Your task to perform on an android device: turn off location Image 0: 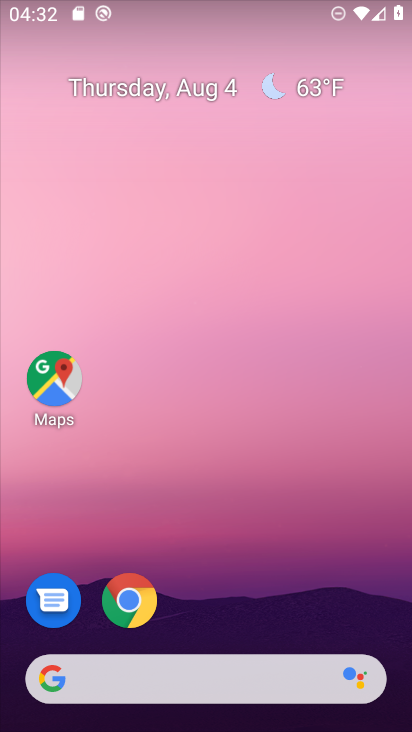
Step 0: drag from (330, 592) to (351, 108)
Your task to perform on an android device: turn off location Image 1: 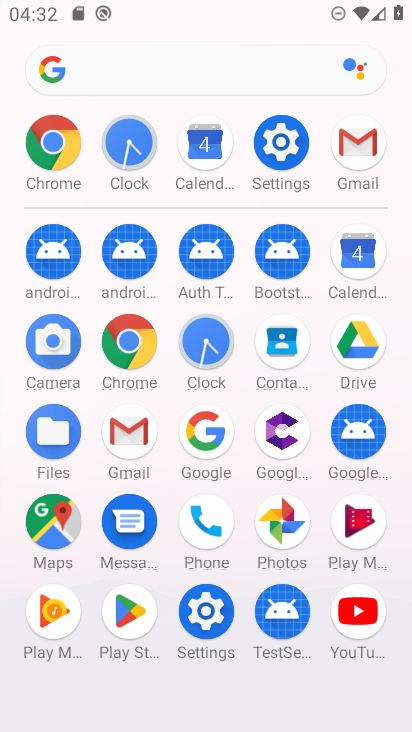
Step 1: click (285, 154)
Your task to perform on an android device: turn off location Image 2: 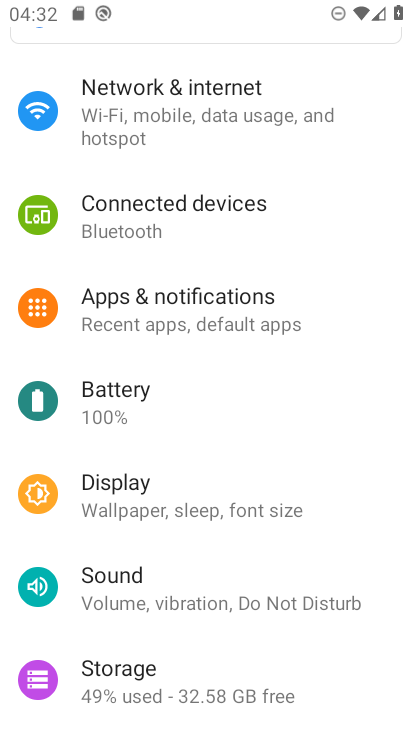
Step 2: drag from (231, 537) to (284, 131)
Your task to perform on an android device: turn off location Image 3: 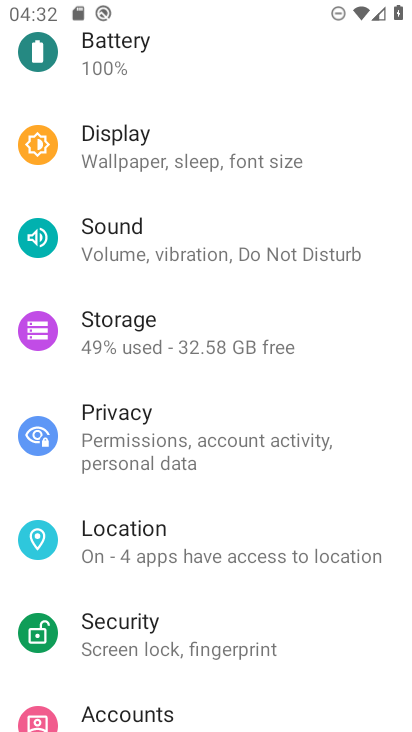
Step 3: click (159, 540)
Your task to perform on an android device: turn off location Image 4: 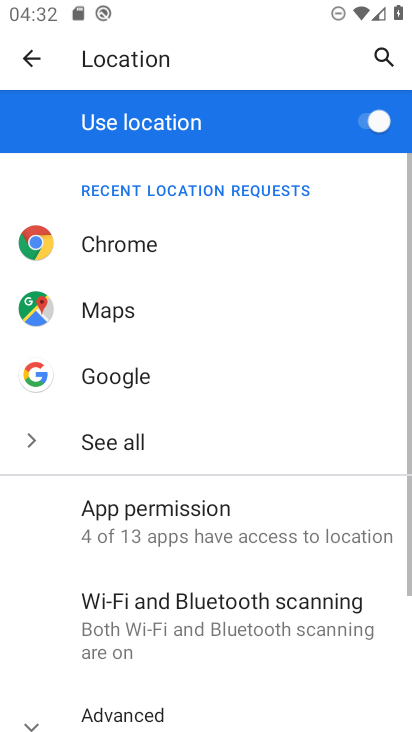
Step 4: click (327, 125)
Your task to perform on an android device: turn off location Image 5: 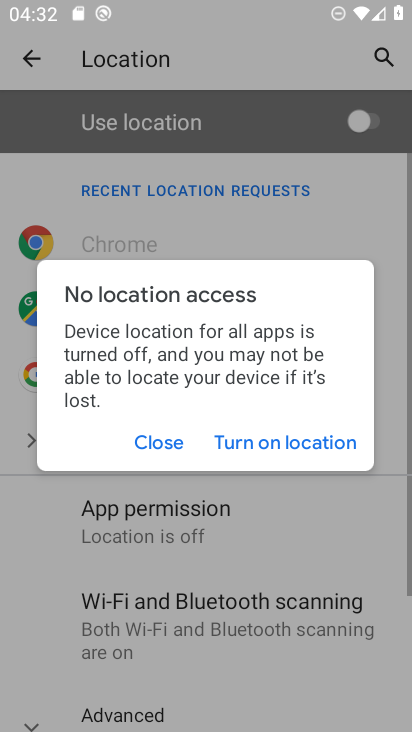
Step 5: task complete